Your task to perform on an android device: Is it going to rain this weekend? Image 0: 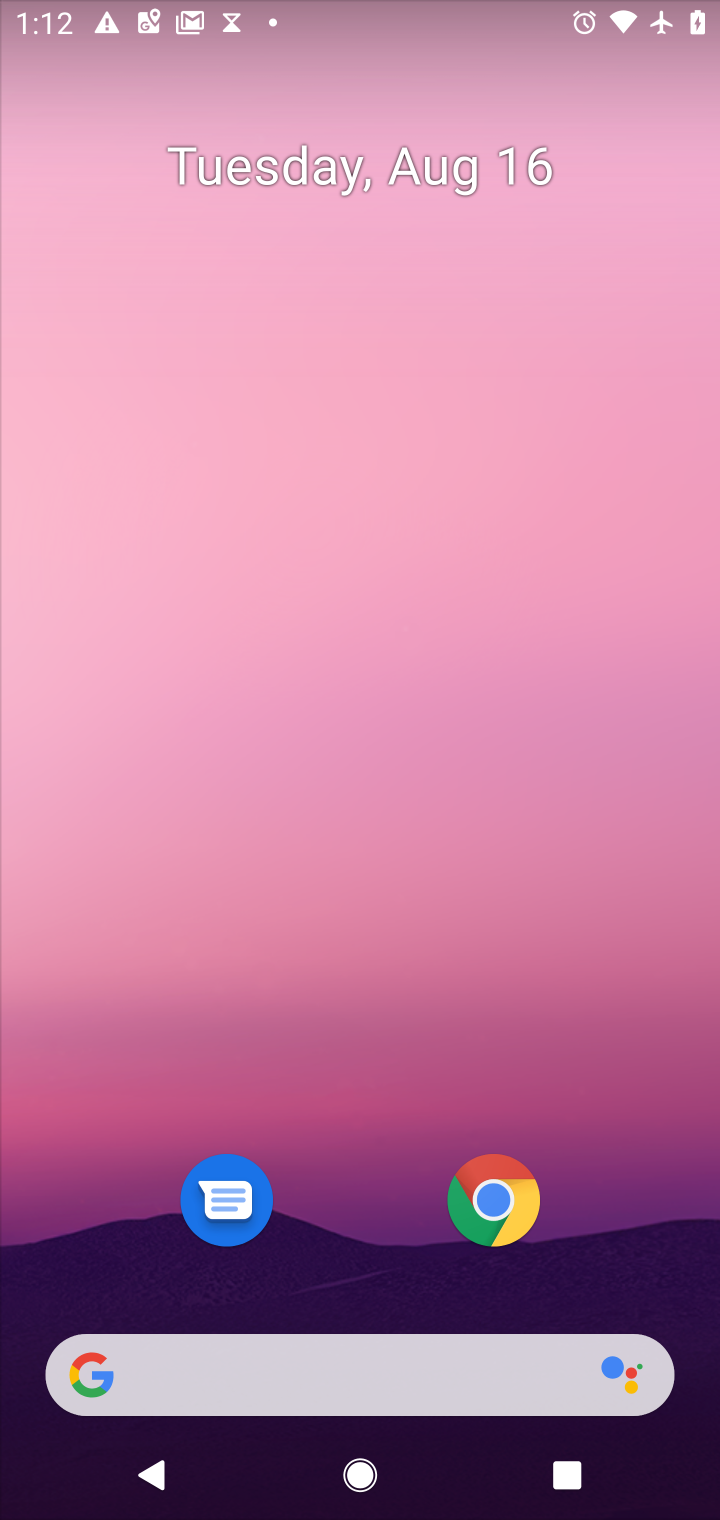
Step 0: drag from (382, 937) to (349, 286)
Your task to perform on an android device: Is it going to rain this weekend? Image 1: 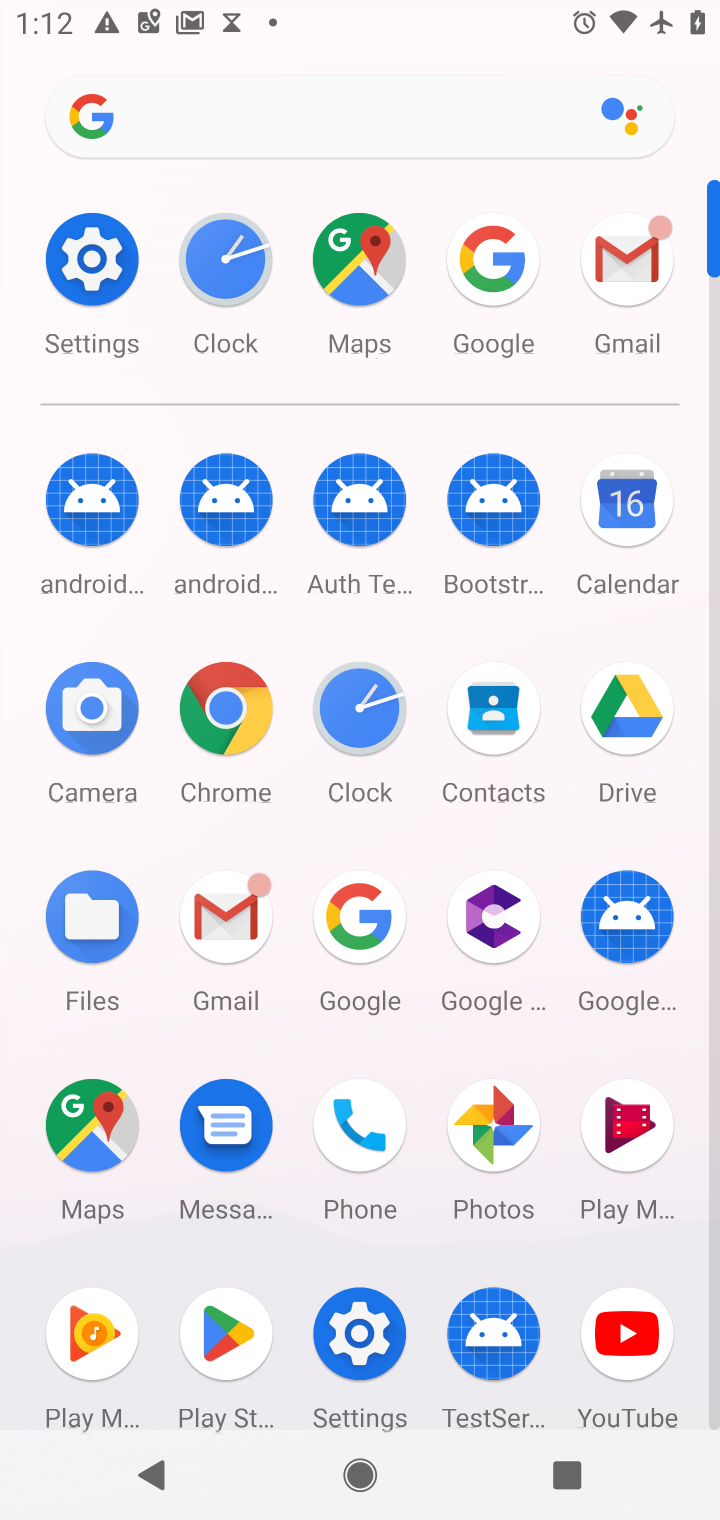
Step 1: click (486, 289)
Your task to perform on an android device: Is it going to rain this weekend? Image 2: 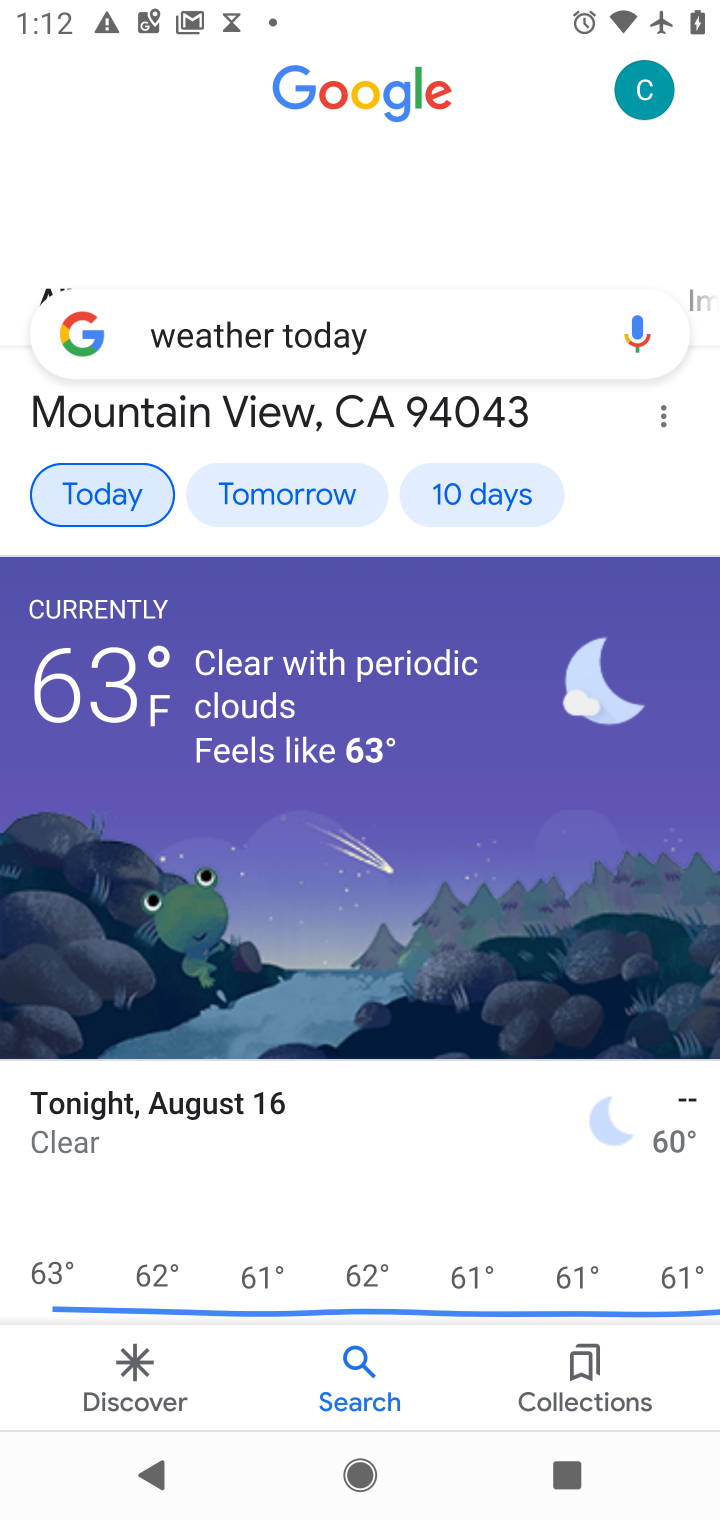
Step 2: click (467, 503)
Your task to perform on an android device: Is it going to rain this weekend? Image 3: 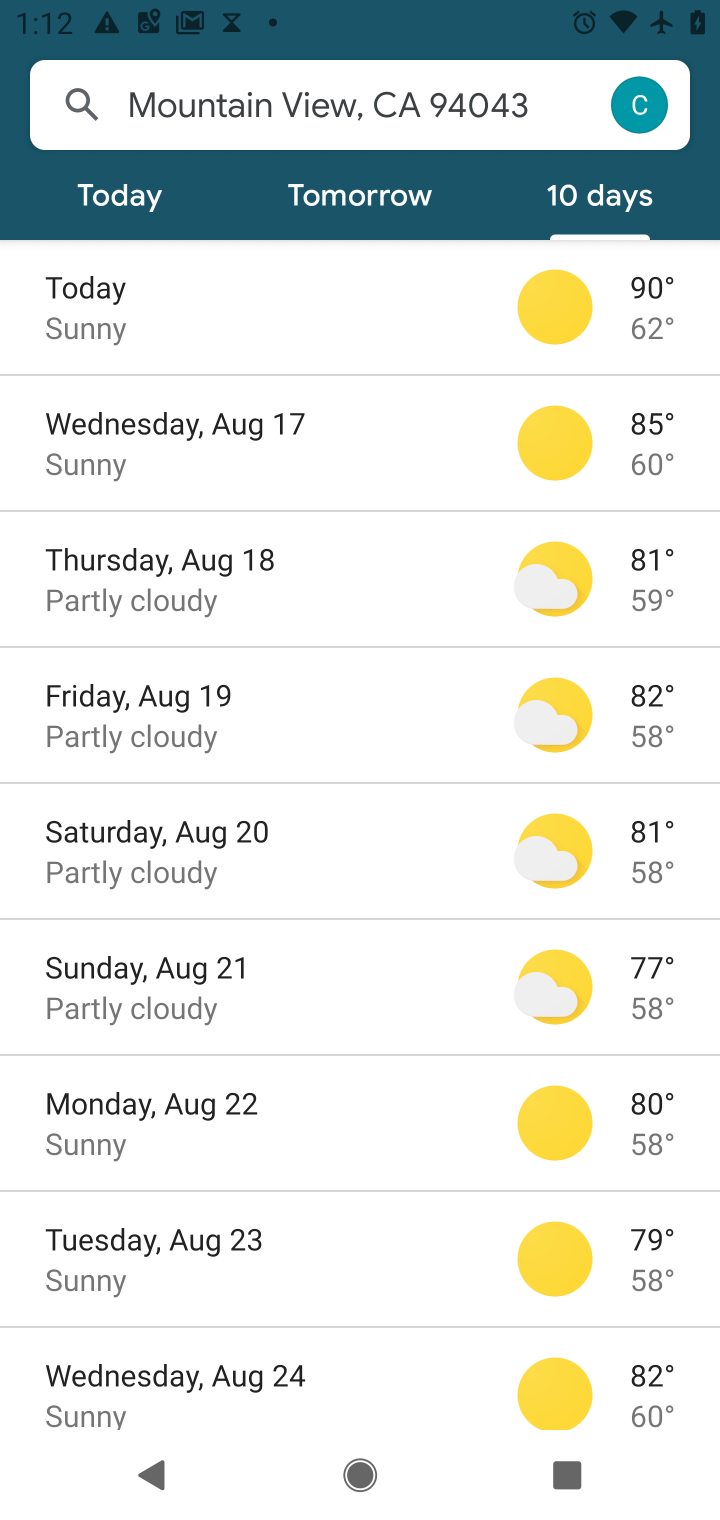
Step 3: task complete